Your task to perform on an android device: change your default location settings in chrome Image 0: 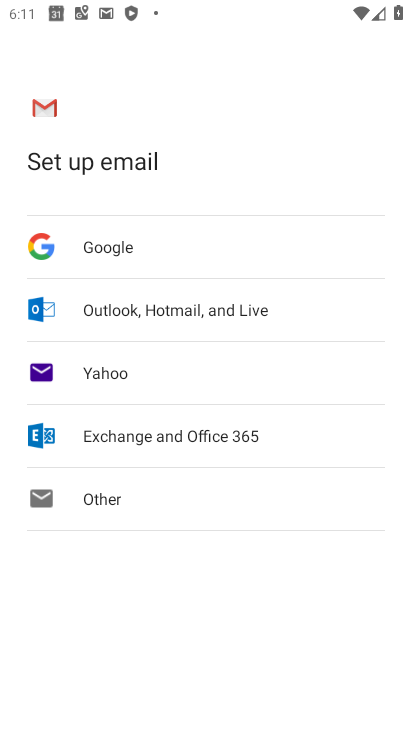
Step 0: press home button
Your task to perform on an android device: change your default location settings in chrome Image 1: 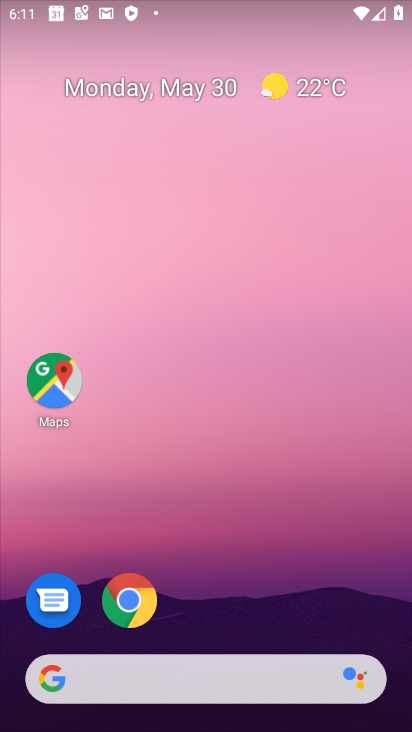
Step 1: click (119, 603)
Your task to perform on an android device: change your default location settings in chrome Image 2: 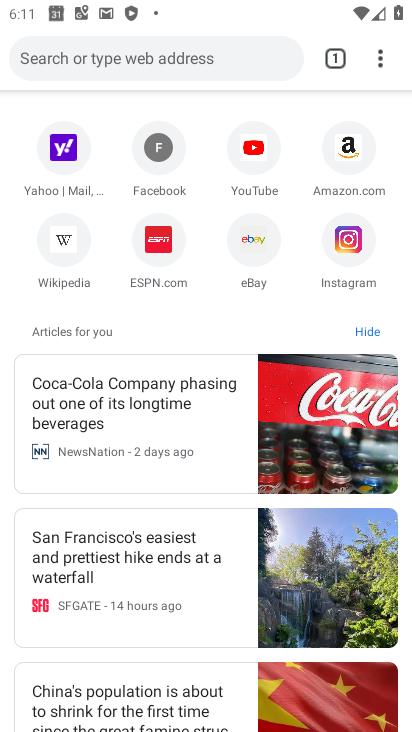
Step 2: drag from (382, 67) to (182, 497)
Your task to perform on an android device: change your default location settings in chrome Image 3: 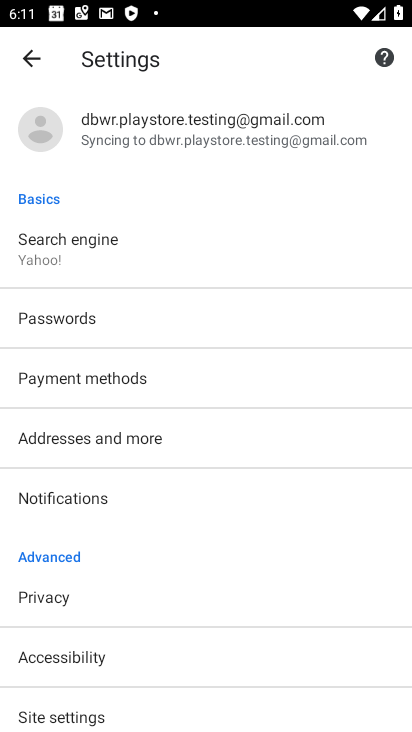
Step 3: click (65, 722)
Your task to perform on an android device: change your default location settings in chrome Image 4: 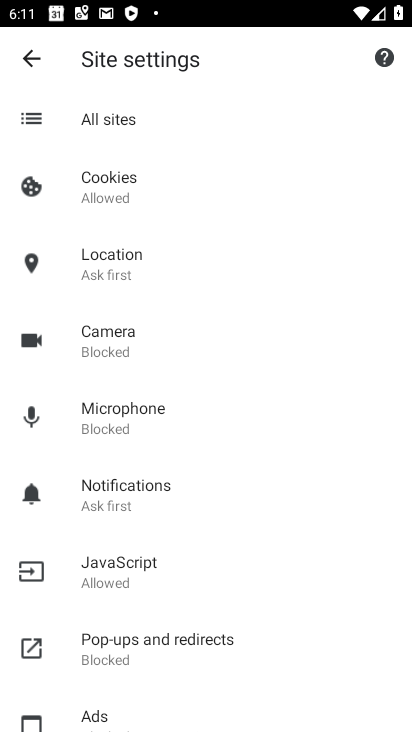
Step 4: click (106, 258)
Your task to perform on an android device: change your default location settings in chrome Image 5: 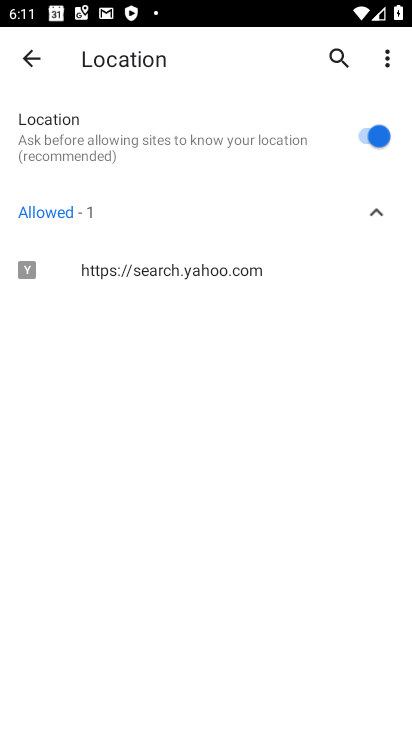
Step 5: click (386, 142)
Your task to perform on an android device: change your default location settings in chrome Image 6: 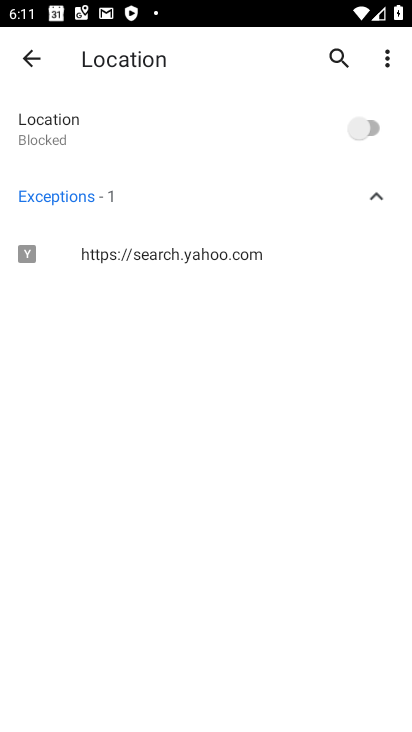
Step 6: task complete